Your task to perform on an android device: Open Google Image 0: 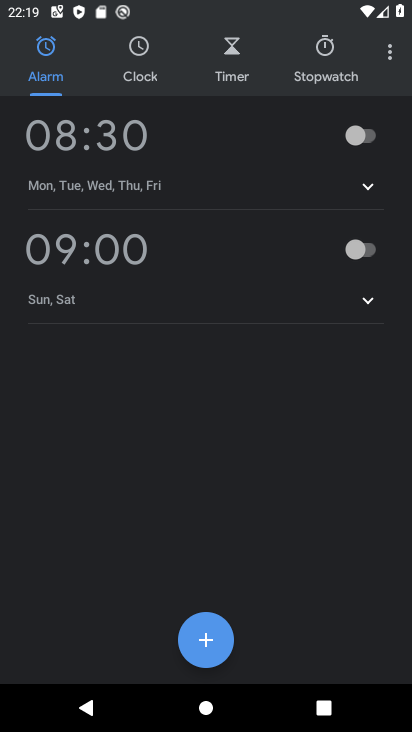
Step 0: press home button
Your task to perform on an android device: Open Google Image 1: 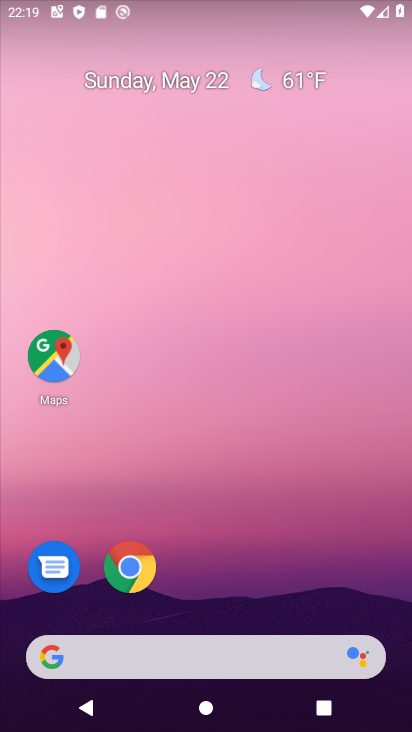
Step 1: click (165, 656)
Your task to perform on an android device: Open Google Image 2: 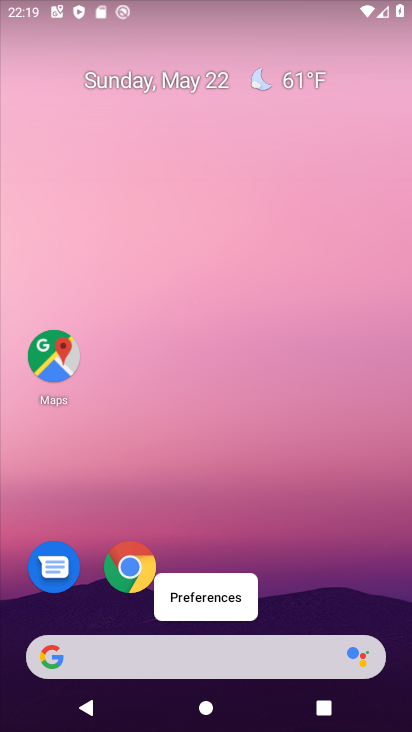
Step 2: click (258, 668)
Your task to perform on an android device: Open Google Image 3: 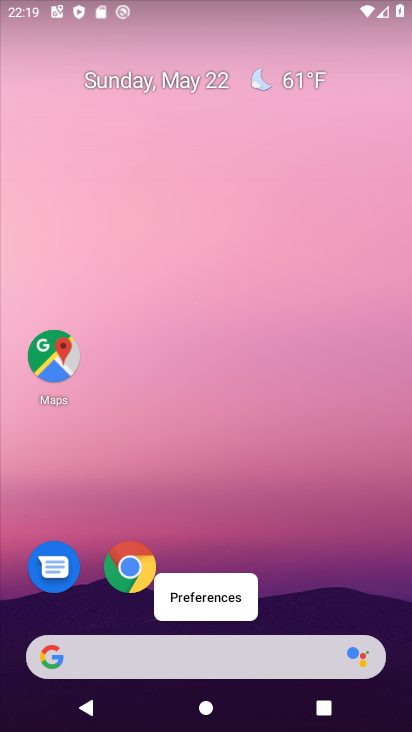
Step 3: click (257, 666)
Your task to perform on an android device: Open Google Image 4: 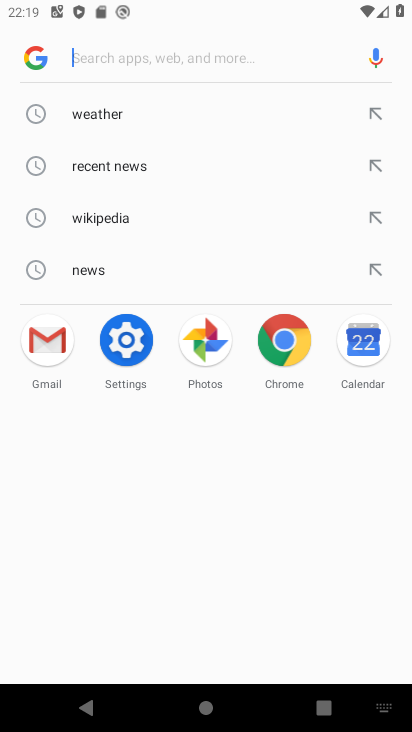
Step 4: task complete